Your task to perform on an android device: open app "Roku - Official Remote Control" (install if not already installed) and go to login screen Image 0: 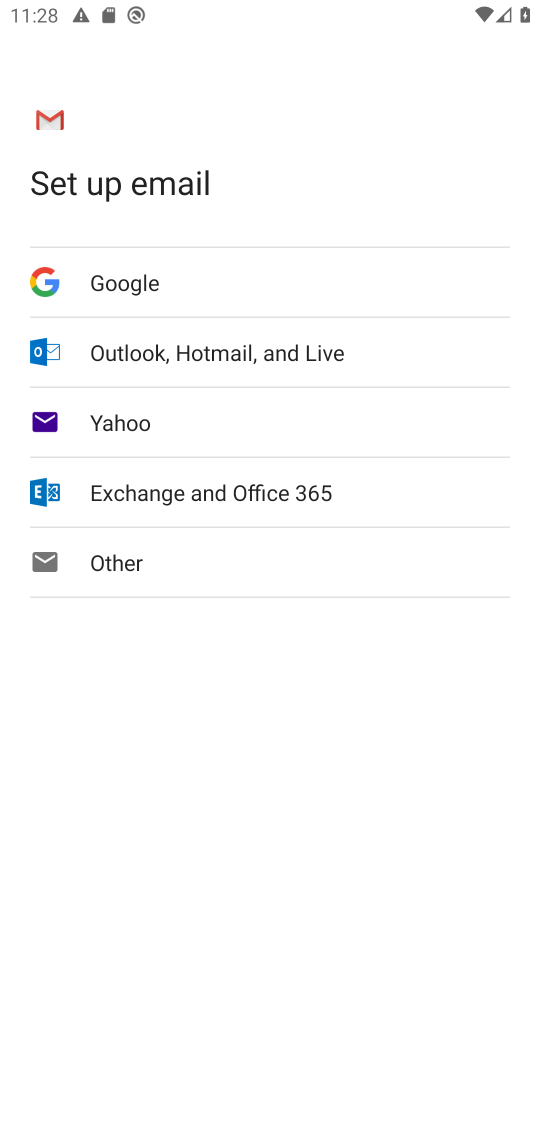
Step 0: press home button
Your task to perform on an android device: open app "Roku - Official Remote Control" (install if not already installed) and go to login screen Image 1: 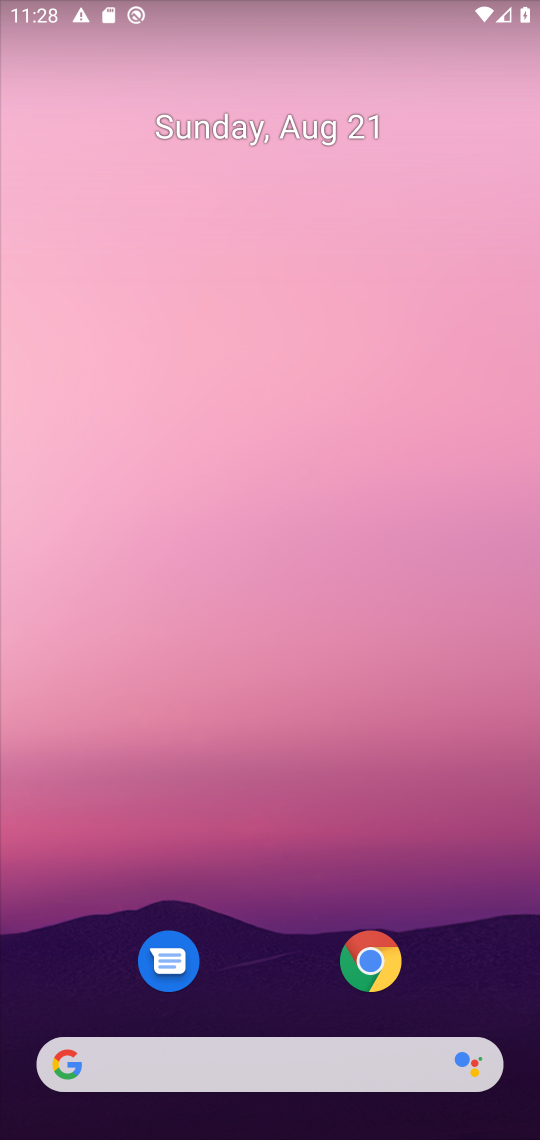
Step 1: drag from (467, 908) to (449, 0)
Your task to perform on an android device: open app "Roku - Official Remote Control" (install if not already installed) and go to login screen Image 2: 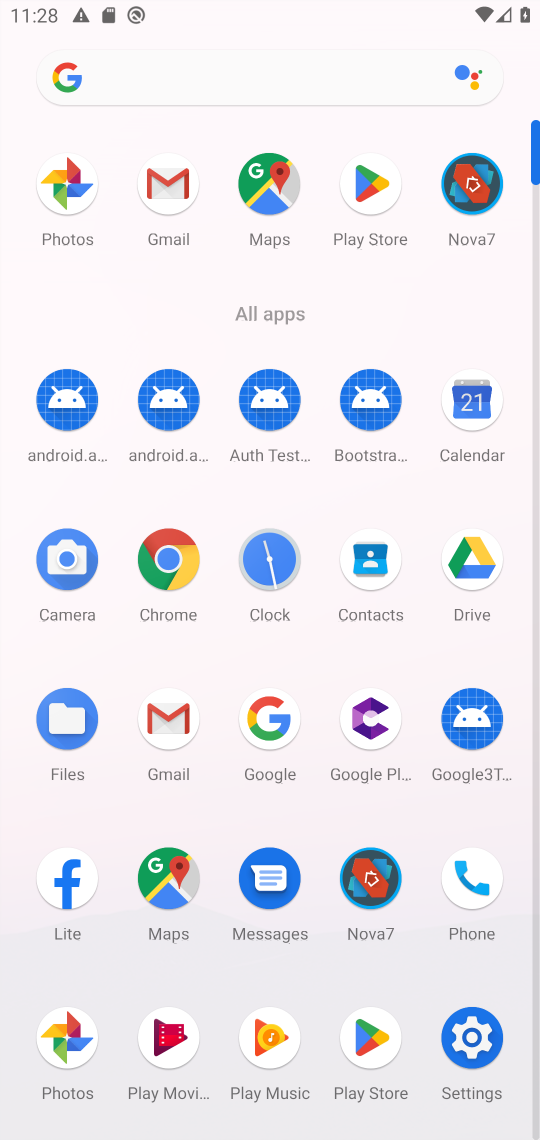
Step 2: click (379, 185)
Your task to perform on an android device: open app "Roku - Official Remote Control" (install if not already installed) and go to login screen Image 3: 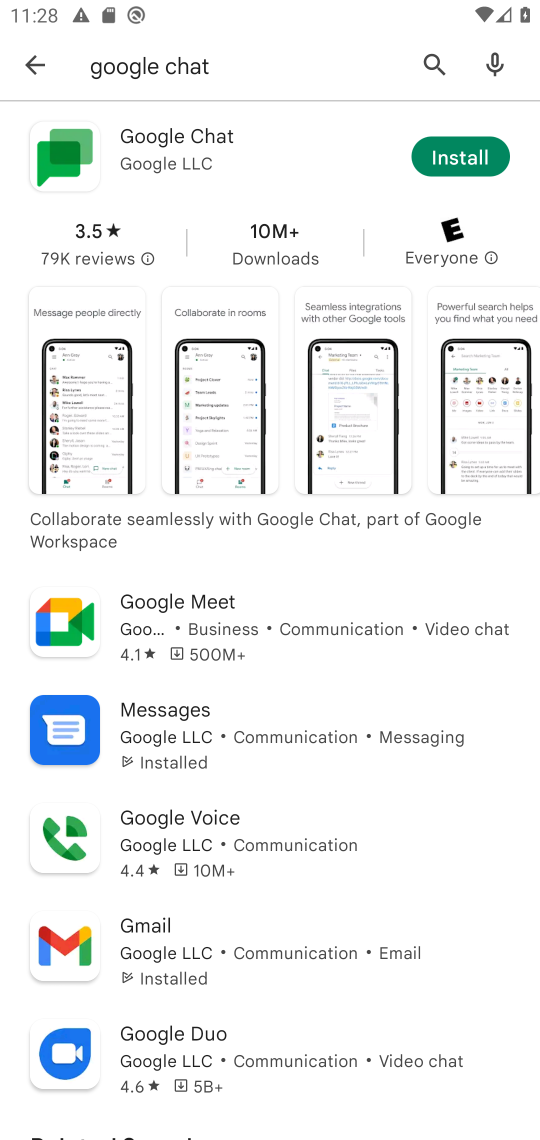
Step 3: press back button
Your task to perform on an android device: open app "Roku - Official Remote Control" (install if not already installed) and go to login screen Image 4: 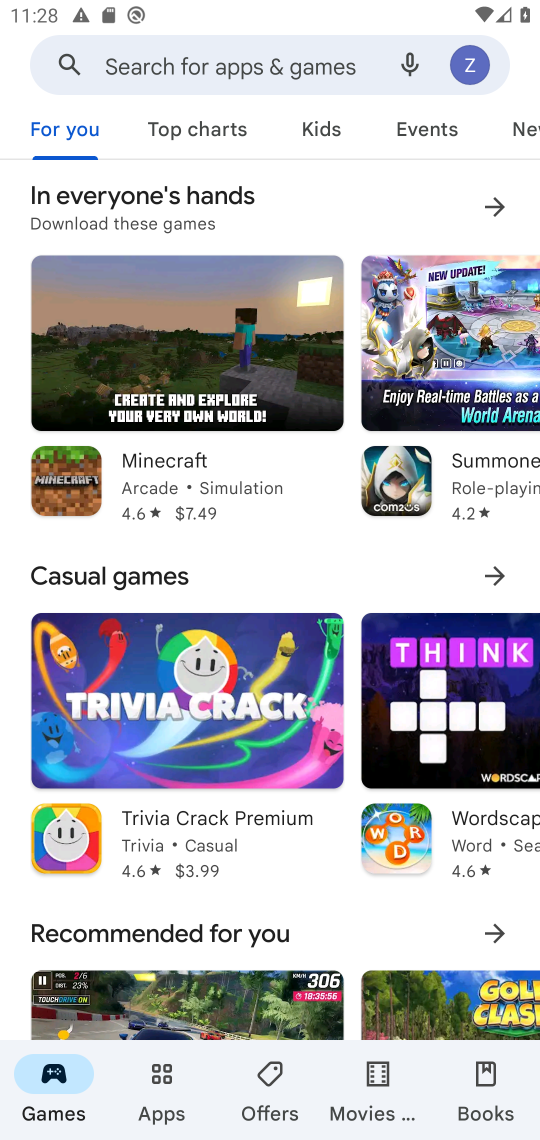
Step 4: click (268, 66)
Your task to perform on an android device: open app "Roku - Official Remote Control" (install if not already installed) and go to login screen Image 5: 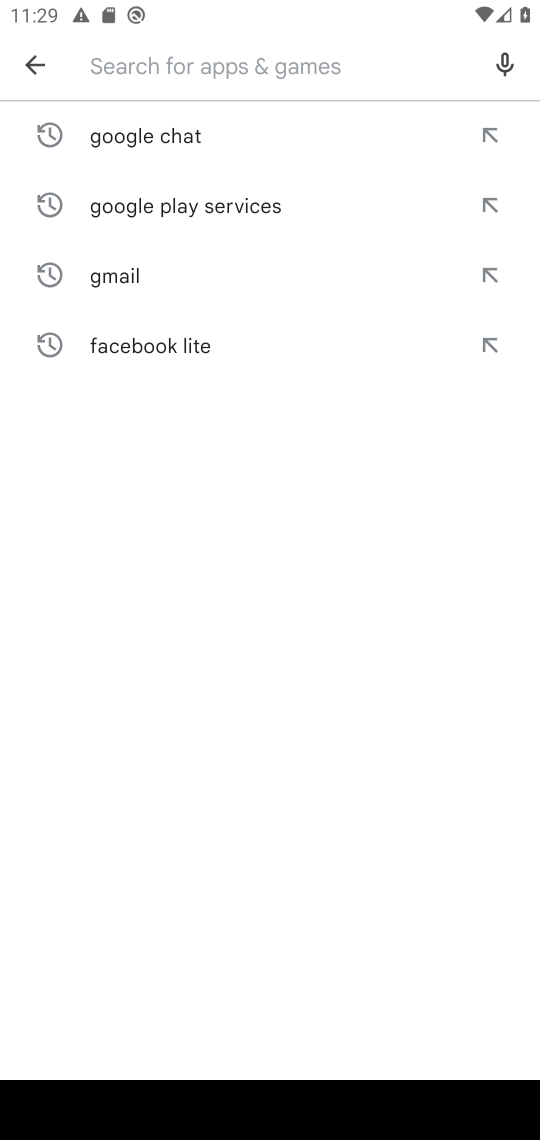
Step 5: type "Roku - Official Remote Control"
Your task to perform on an android device: open app "Roku - Official Remote Control" (install if not already installed) and go to login screen Image 6: 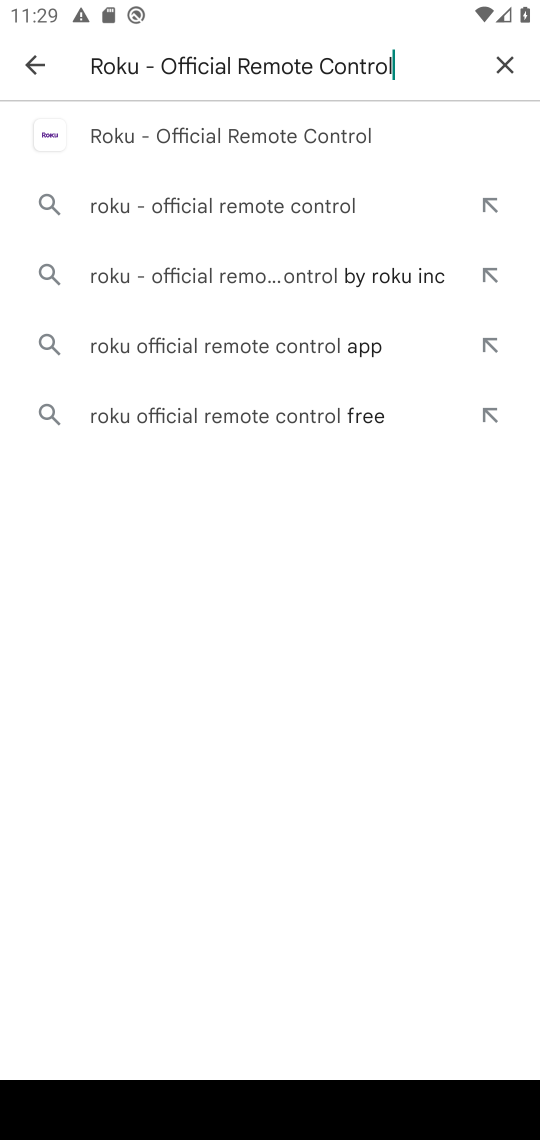
Step 6: click (265, 120)
Your task to perform on an android device: open app "Roku - Official Remote Control" (install if not already installed) and go to login screen Image 7: 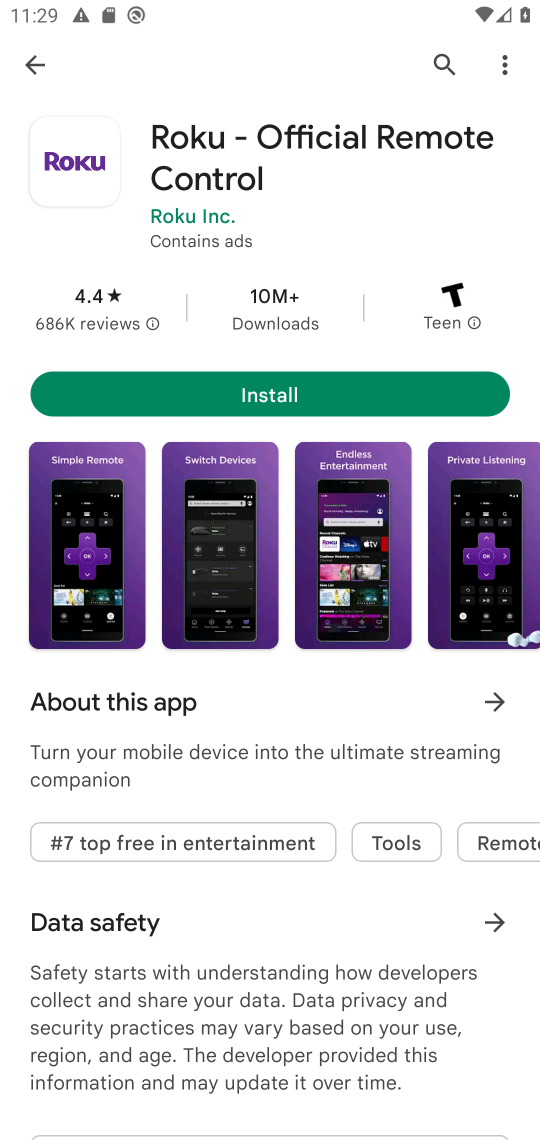
Step 7: click (309, 393)
Your task to perform on an android device: open app "Roku - Official Remote Control" (install if not already installed) and go to login screen Image 8: 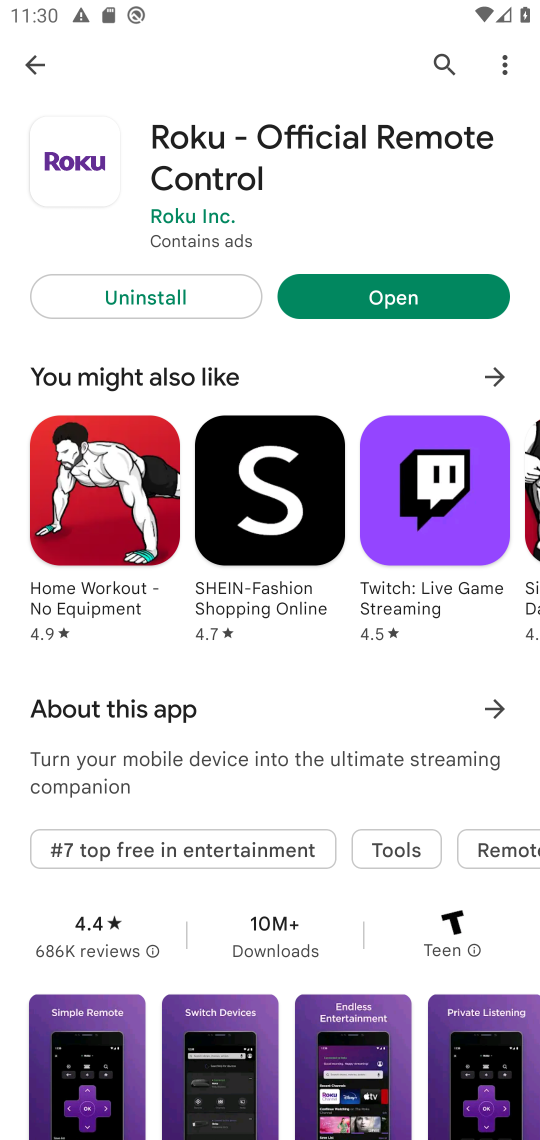
Step 8: click (421, 295)
Your task to perform on an android device: open app "Roku - Official Remote Control" (install if not already installed) and go to login screen Image 9: 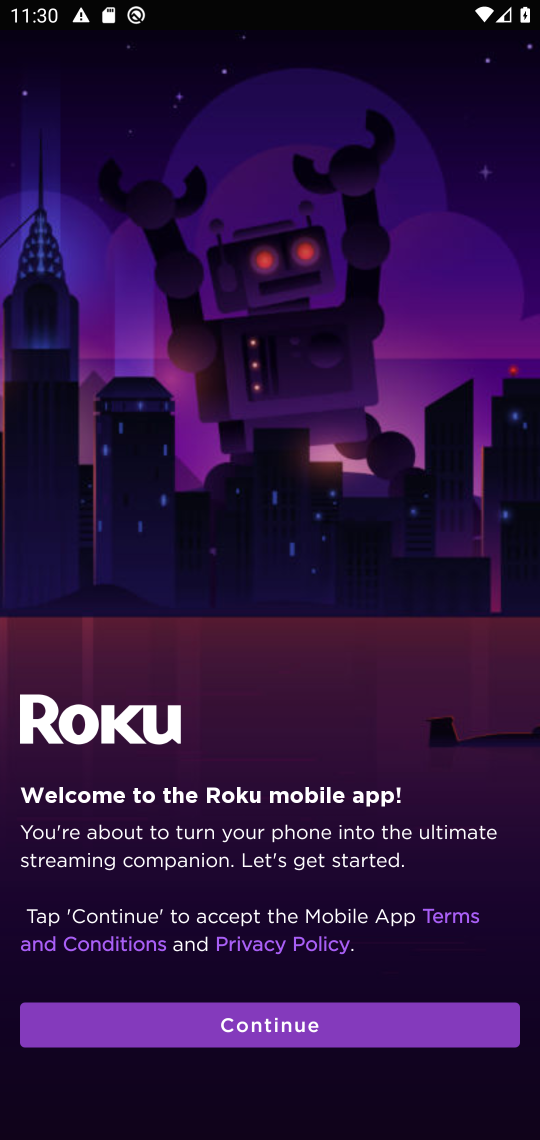
Step 9: click (325, 1028)
Your task to perform on an android device: open app "Roku - Official Remote Control" (install if not already installed) and go to login screen Image 10: 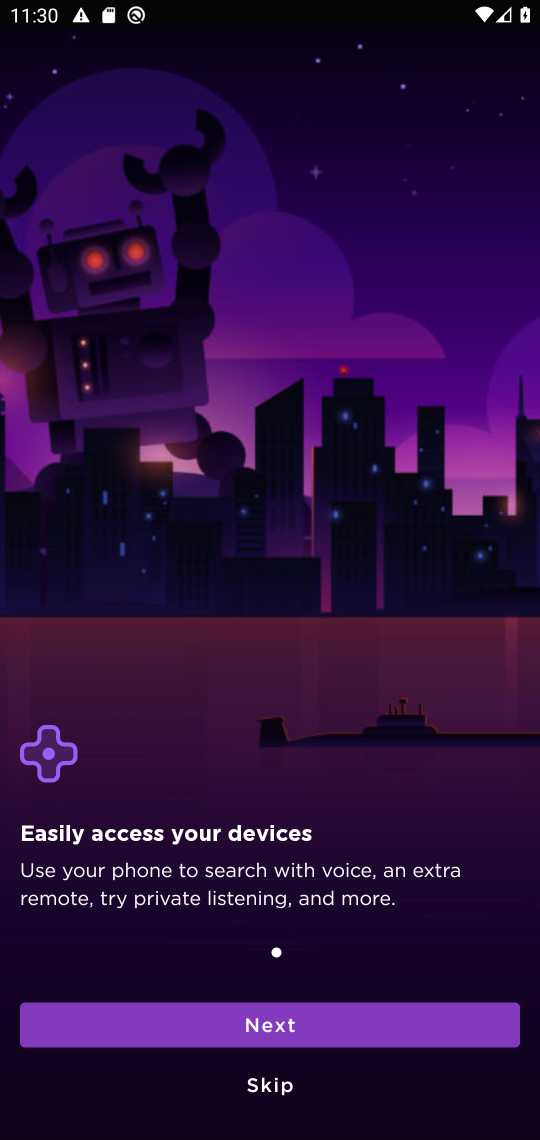
Step 10: click (372, 1027)
Your task to perform on an android device: open app "Roku - Official Remote Control" (install if not already installed) and go to login screen Image 11: 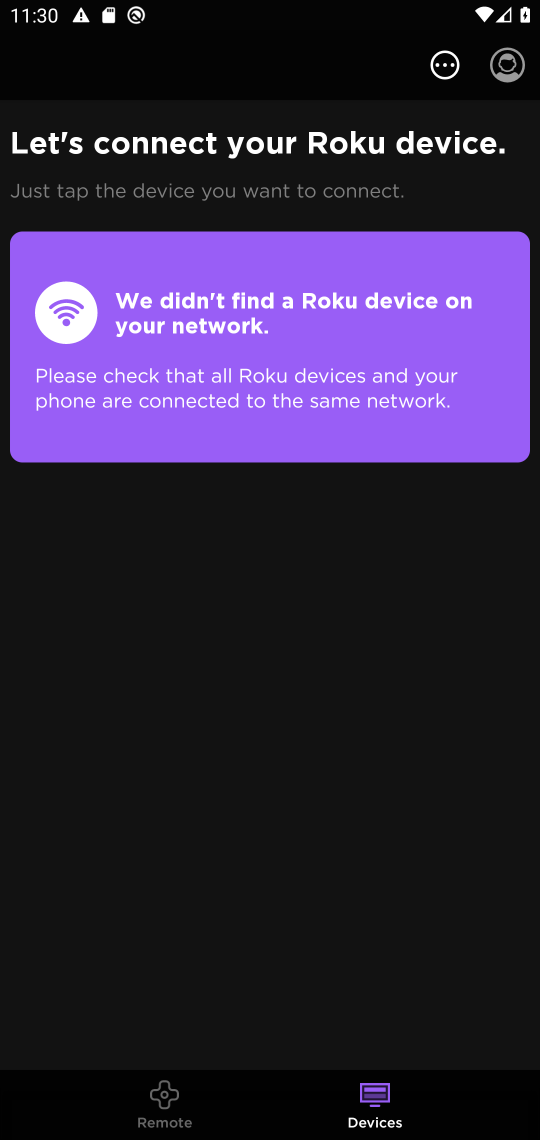
Step 11: task complete